Your task to perform on an android device: Search for corsair k70 on amazon, select the first entry, add it to the cart, then select checkout. Image 0: 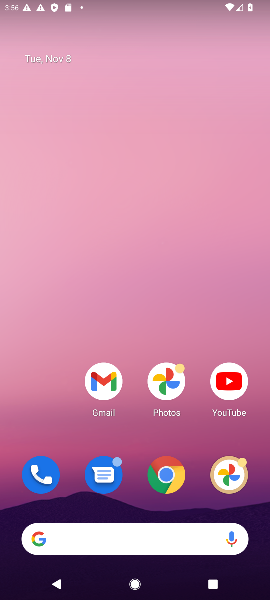
Step 0: drag from (120, 485) to (119, 177)
Your task to perform on an android device: Search for corsair k70 on amazon, select the first entry, add it to the cart, then select checkout. Image 1: 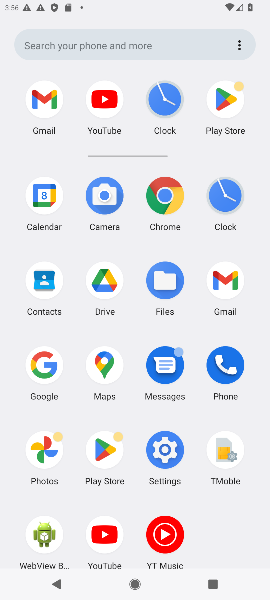
Step 1: click (43, 372)
Your task to perform on an android device: Search for corsair k70 on amazon, select the first entry, add it to the cart, then select checkout. Image 2: 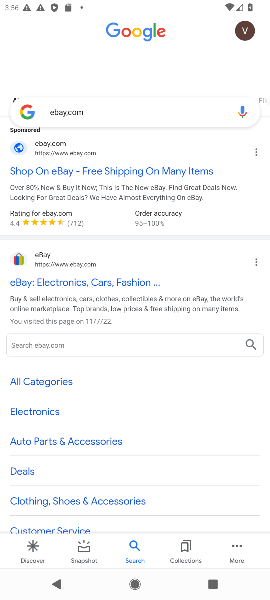
Step 2: click (149, 98)
Your task to perform on an android device: Search for corsair k70 on amazon, select the first entry, add it to the cart, then select checkout. Image 3: 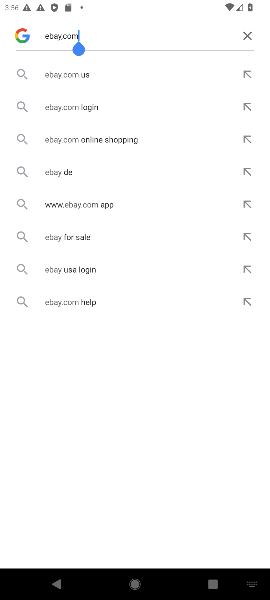
Step 3: click (245, 34)
Your task to perform on an android device: Search for corsair k70 on amazon, select the first entry, add it to the cart, then select checkout. Image 4: 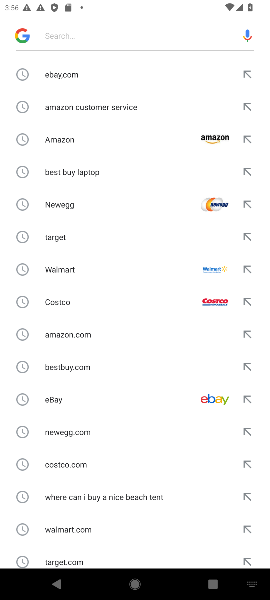
Step 4: click (63, 26)
Your task to perform on an android device: Search for corsair k70 on amazon, select the first entry, add it to the cart, then select checkout. Image 5: 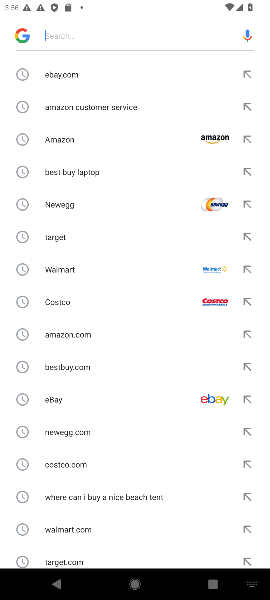
Step 5: click (69, 26)
Your task to perform on an android device: Search for corsair k70 on amazon, select the first entry, add it to the cart, then select checkout. Image 6: 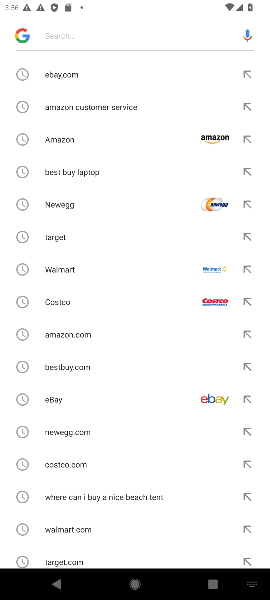
Step 6: type "amazon "
Your task to perform on an android device: Search for corsair k70 on amazon, select the first entry, add it to the cart, then select checkout. Image 7: 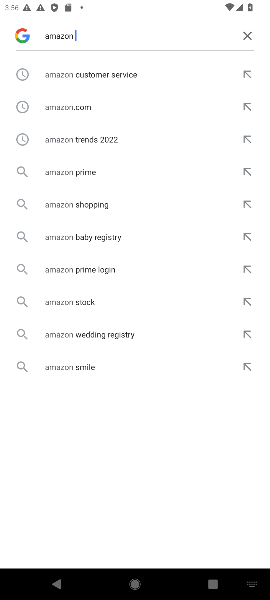
Step 7: click (88, 105)
Your task to perform on an android device: Search for corsair k70 on amazon, select the first entry, add it to the cart, then select checkout. Image 8: 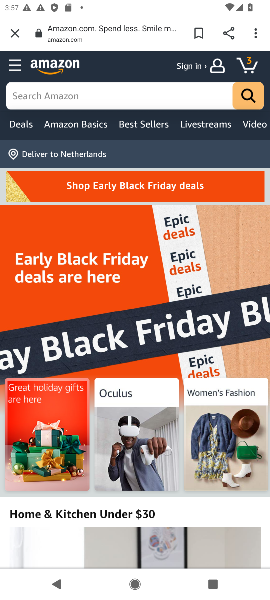
Step 8: click (118, 93)
Your task to perform on an android device: Search for corsair k70 on amazon, select the first entry, add it to the cart, then select checkout. Image 9: 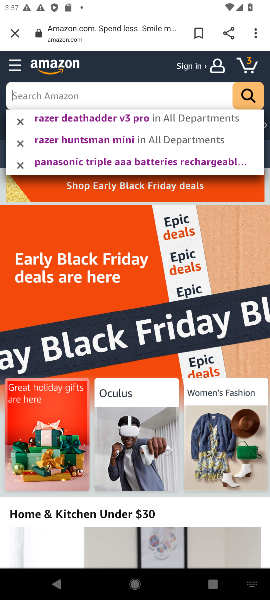
Step 9: click (109, 89)
Your task to perform on an android device: Search for corsair k70 on amazon, select the first entry, add it to the cart, then select checkout. Image 10: 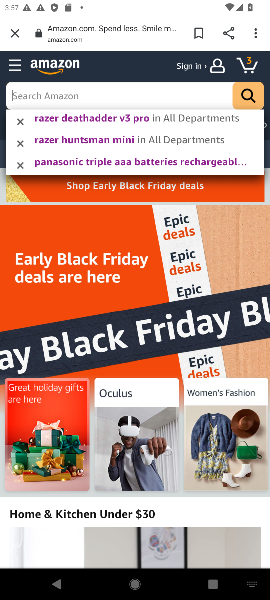
Step 10: type "corsair k70  "
Your task to perform on an android device: Search for corsair k70 on amazon, select the first entry, add it to the cart, then select checkout. Image 11: 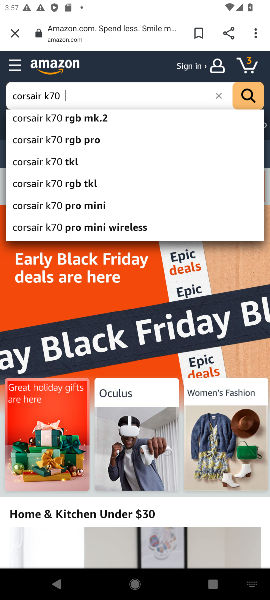
Step 11: click (62, 114)
Your task to perform on an android device: Search for corsair k70 on amazon, select the first entry, add it to the cart, then select checkout. Image 12: 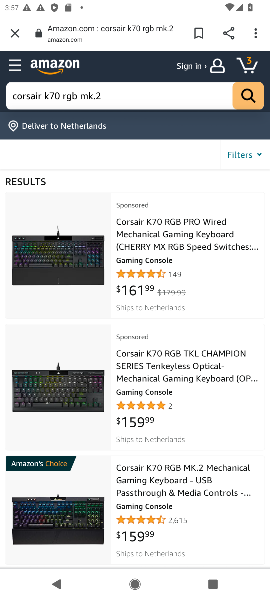
Step 12: click (159, 233)
Your task to perform on an android device: Search for corsair k70 on amazon, select the first entry, add it to the cart, then select checkout. Image 13: 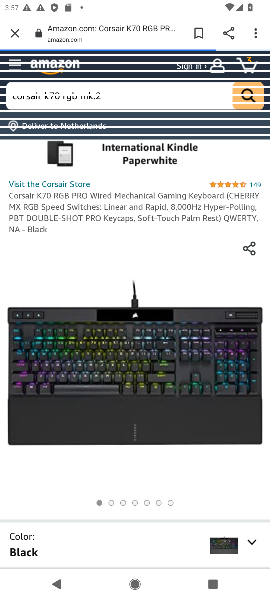
Step 13: drag from (134, 501) to (178, 289)
Your task to perform on an android device: Search for corsair k70 on amazon, select the first entry, add it to the cart, then select checkout. Image 14: 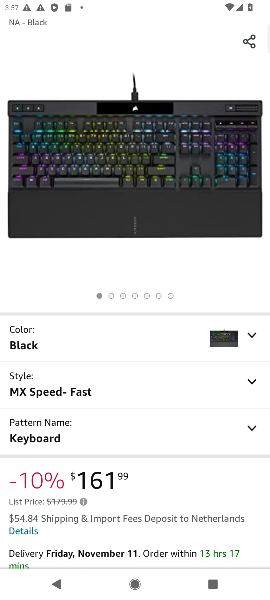
Step 14: drag from (123, 523) to (158, 247)
Your task to perform on an android device: Search for corsair k70 on amazon, select the first entry, add it to the cart, then select checkout. Image 15: 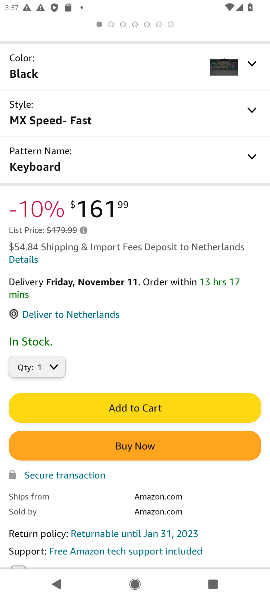
Step 15: click (177, 402)
Your task to perform on an android device: Search for corsair k70 on amazon, select the first entry, add it to the cart, then select checkout. Image 16: 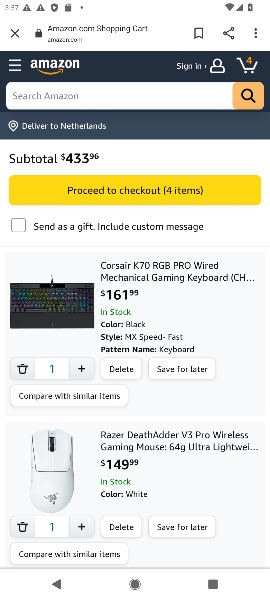
Step 16: task complete